Your task to perform on an android device: turn notification dots on Image 0: 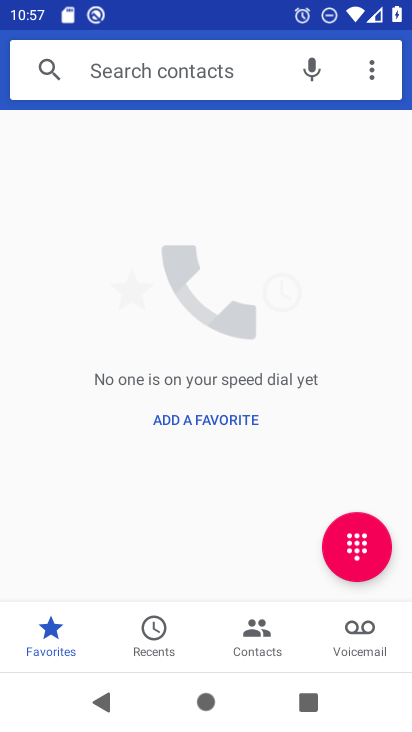
Step 0: press back button
Your task to perform on an android device: turn notification dots on Image 1: 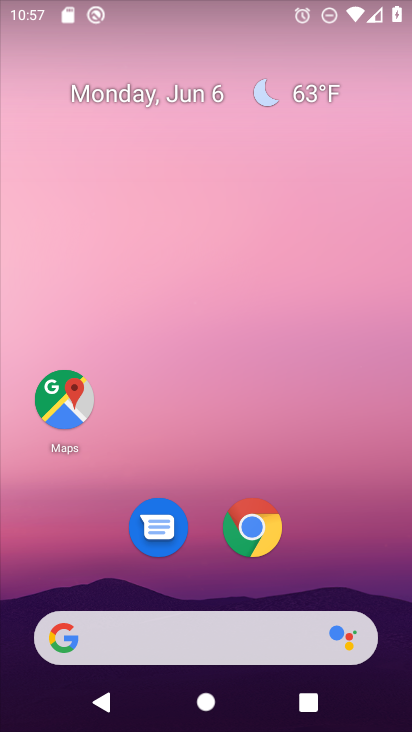
Step 1: drag from (363, 545) to (376, 150)
Your task to perform on an android device: turn notification dots on Image 2: 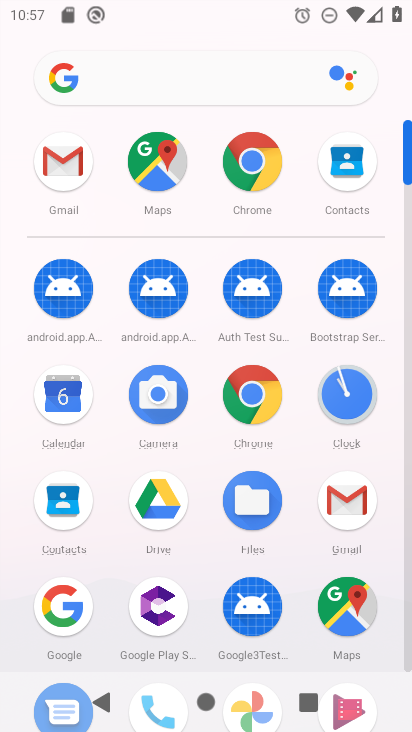
Step 2: drag from (388, 581) to (401, 194)
Your task to perform on an android device: turn notification dots on Image 3: 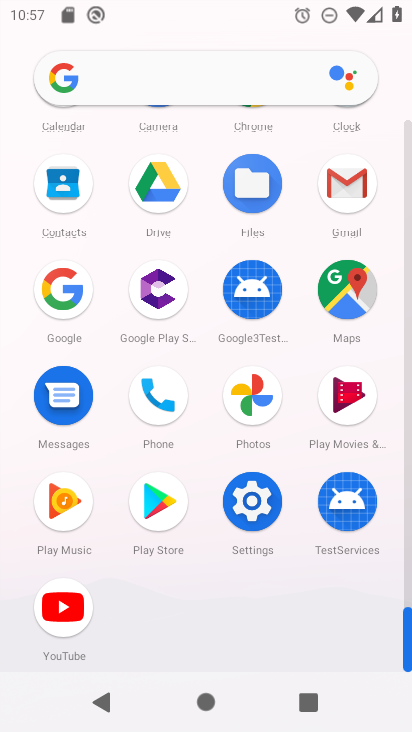
Step 3: click (268, 516)
Your task to perform on an android device: turn notification dots on Image 4: 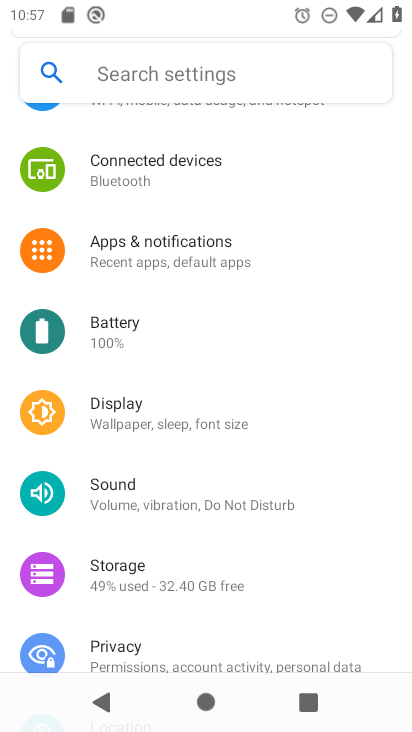
Step 4: drag from (349, 574) to (340, 371)
Your task to perform on an android device: turn notification dots on Image 5: 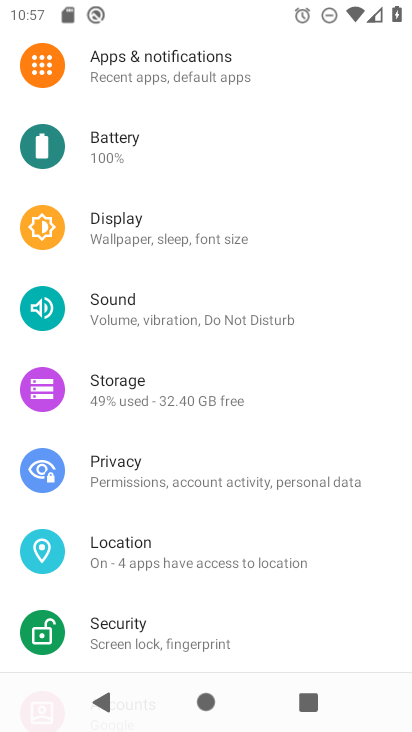
Step 5: drag from (333, 535) to (363, 357)
Your task to perform on an android device: turn notification dots on Image 6: 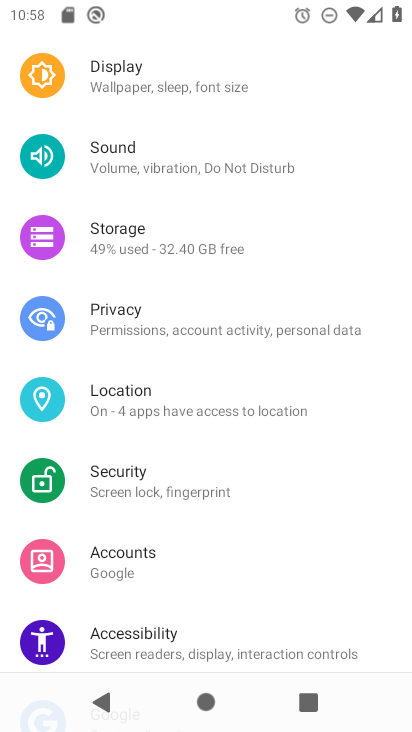
Step 6: drag from (355, 226) to (358, 382)
Your task to perform on an android device: turn notification dots on Image 7: 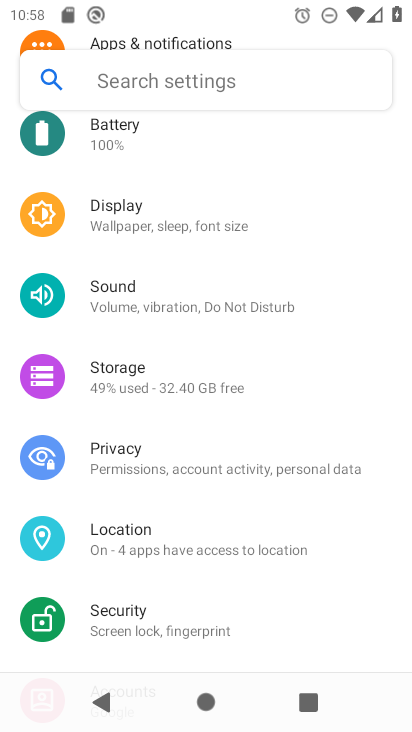
Step 7: drag from (346, 226) to (360, 389)
Your task to perform on an android device: turn notification dots on Image 8: 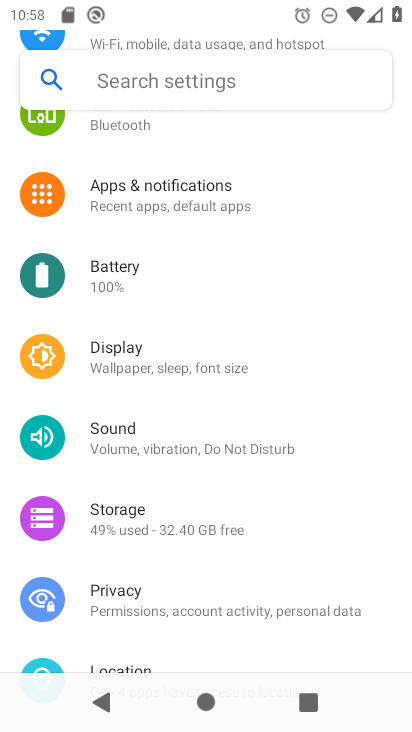
Step 8: drag from (328, 266) to (352, 402)
Your task to perform on an android device: turn notification dots on Image 9: 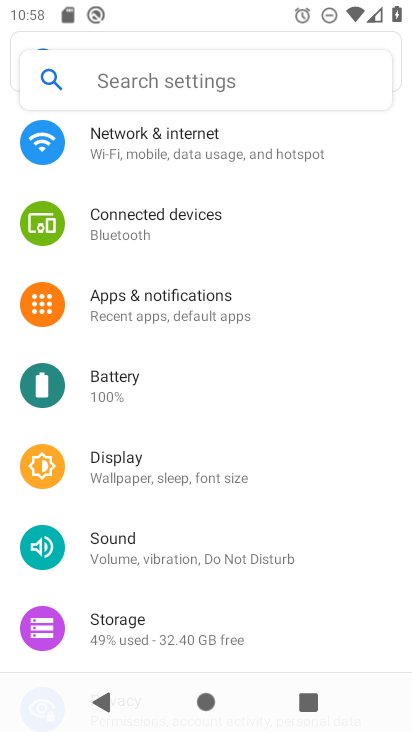
Step 9: click (246, 293)
Your task to perform on an android device: turn notification dots on Image 10: 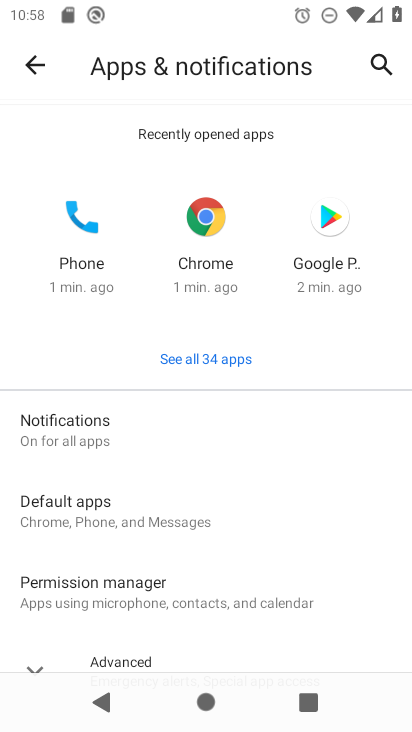
Step 10: click (189, 423)
Your task to perform on an android device: turn notification dots on Image 11: 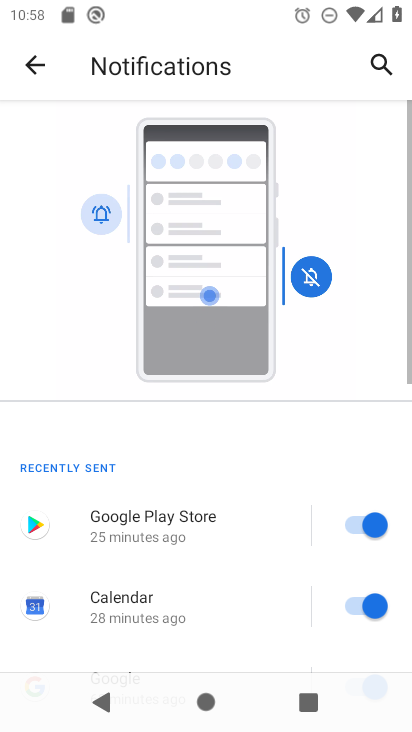
Step 11: drag from (285, 502) to (274, 364)
Your task to perform on an android device: turn notification dots on Image 12: 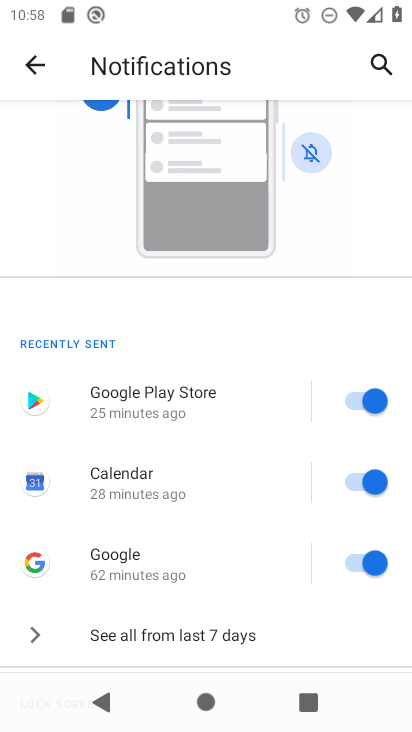
Step 12: drag from (257, 525) to (250, 409)
Your task to perform on an android device: turn notification dots on Image 13: 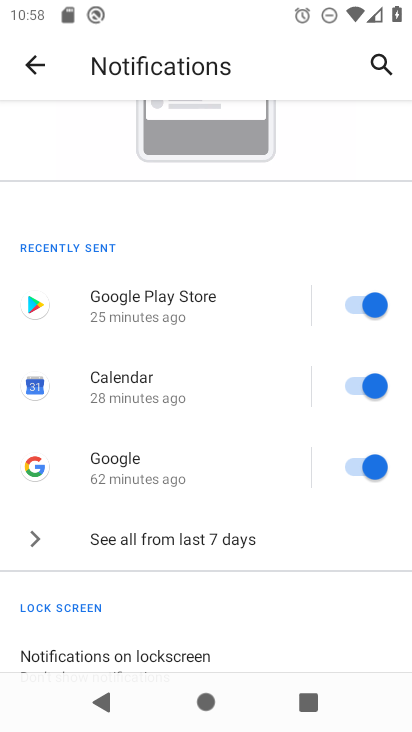
Step 13: drag from (274, 567) to (264, 276)
Your task to perform on an android device: turn notification dots on Image 14: 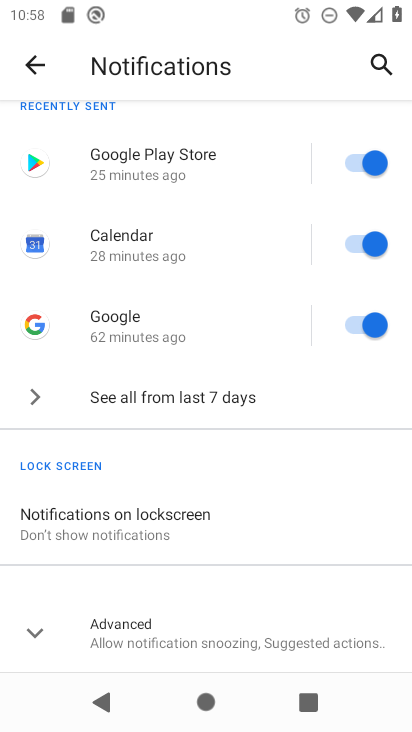
Step 14: click (272, 633)
Your task to perform on an android device: turn notification dots on Image 15: 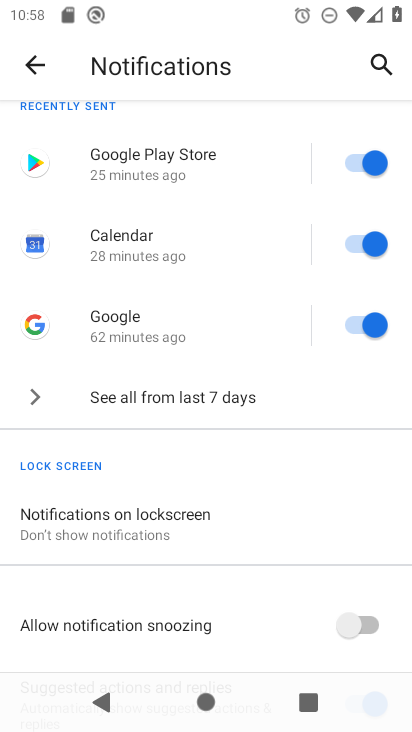
Step 15: task complete